Your task to perform on an android device: Open battery settings Image 0: 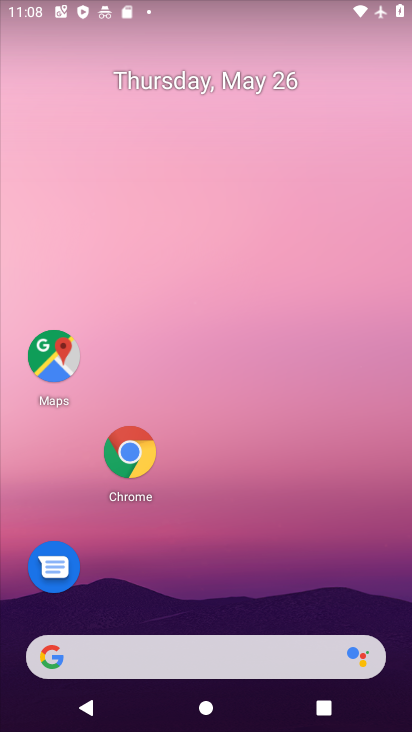
Step 0: press home button
Your task to perform on an android device: Open battery settings Image 1: 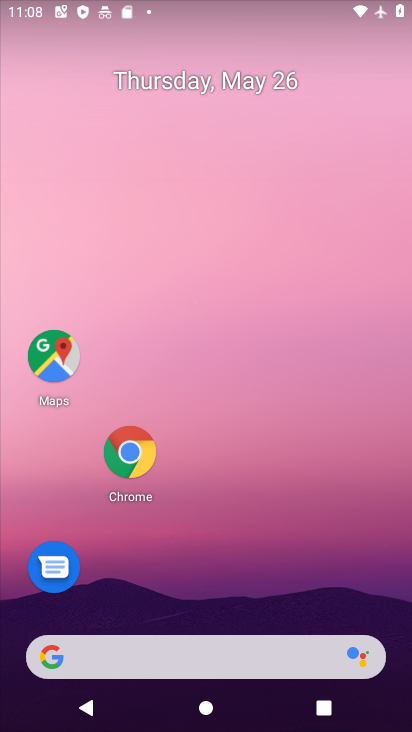
Step 1: drag from (168, 655) to (338, 42)
Your task to perform on an android device: Open battery settings Image 2: 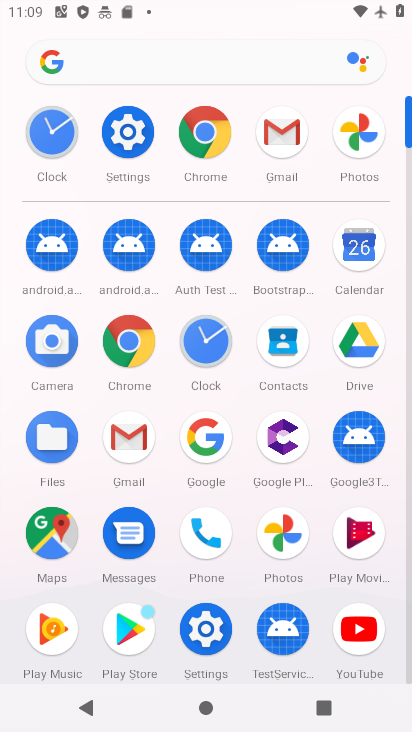
Step 2: click (118, 138)
Your task to perform on an android device: Open battery settings Image 3: 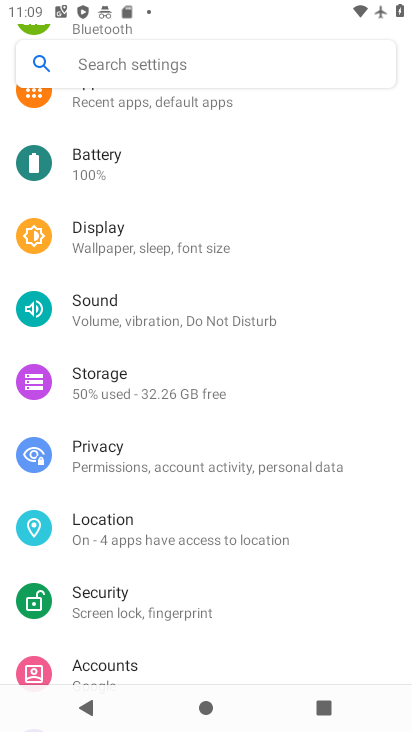
Step 3: click (92, 159)
Your task to perform on an android device: Open battery settings Image 4: 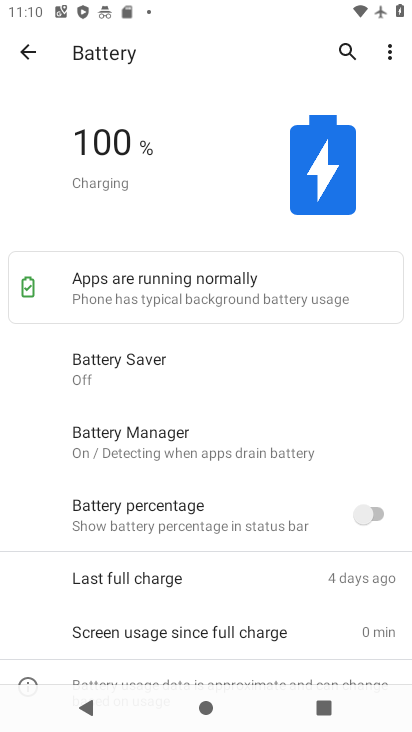
Step 4: task complete